Your task to perform on an android device: Show me popular videos on Youtube Image 0: 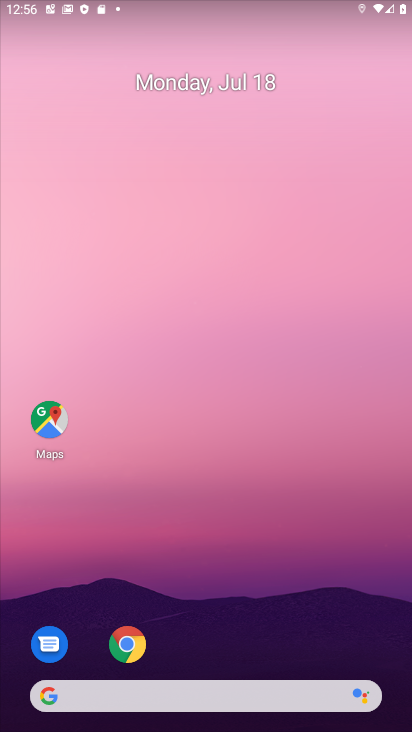
Step 0: drag from (239, 587) to (238, 265)
Your task to perform on an android device: Show me popular videos on Youtube Image 1: 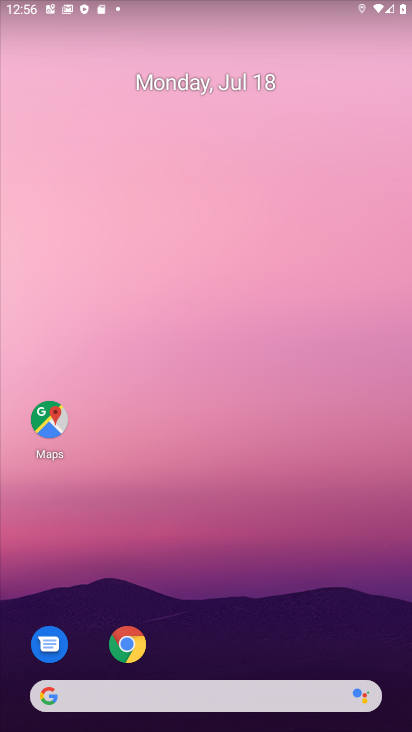
Step 1: drag from (276, 583) to (231, 16)
Your task to perform on an android device: Show me popular videos on Youtube Image 2: 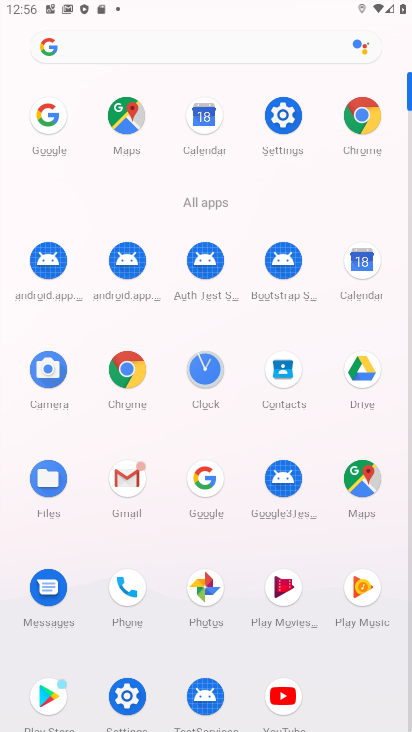
Step 2: click (279, 696)
Your task to perform on an android device: Show me popular videos on Youtube Image 3: 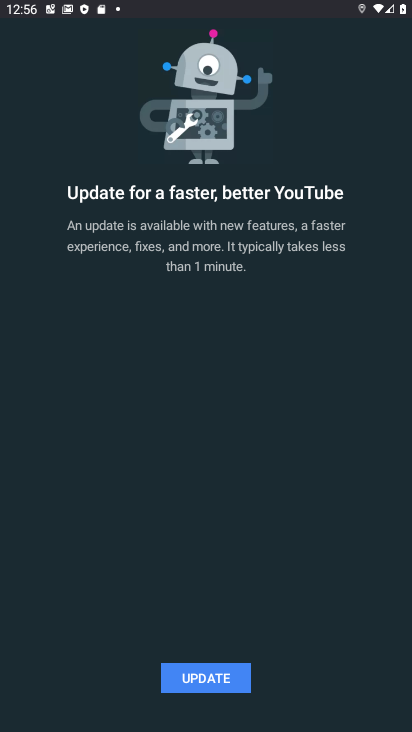
Step 3: click (205, 678)
Your task to perform on an android device: Show me popular videos on Youtube Image 4: 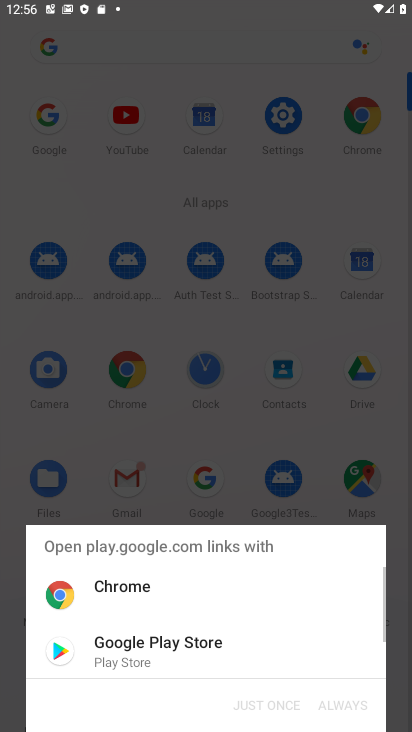
Step 4: click (213, 650)
Your task to perform on an android device: Show me popular videos on Youtube Image 5: 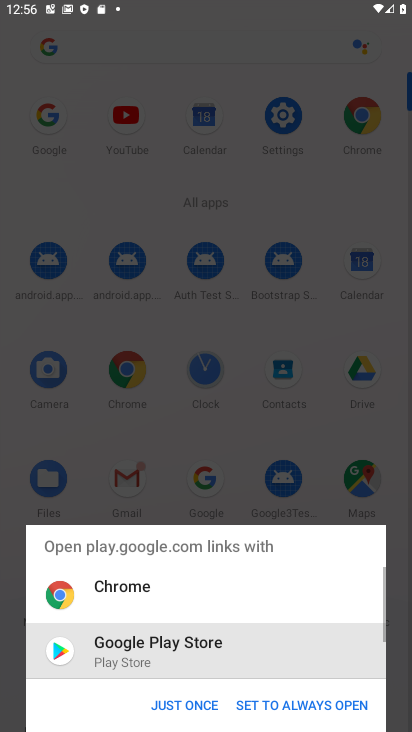
Step 5: click (164, 723)
Your task to perform on an android device: Show me popular videos on Youtube Image 6: 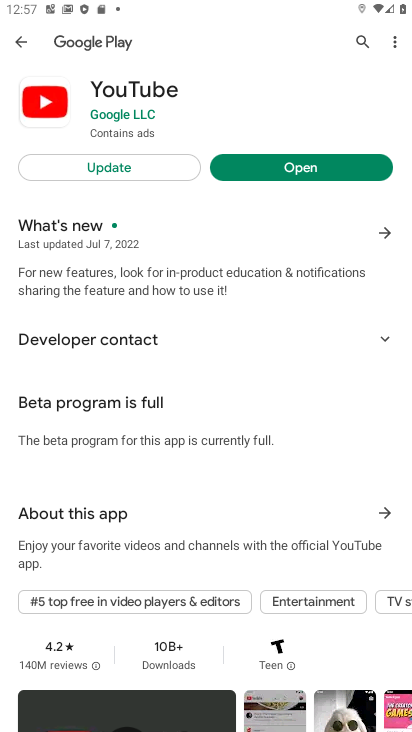
Step 6: click (139, 176)
Your task to perform on an android device: Show me popular videos on Youtube Image 7: 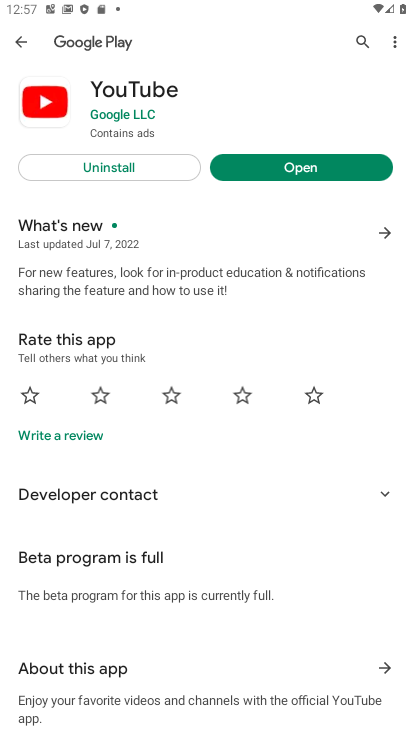
Step 7: click (256, 169)
Your task to perform on an android device: Show me popular videos on Youtube Image 8: 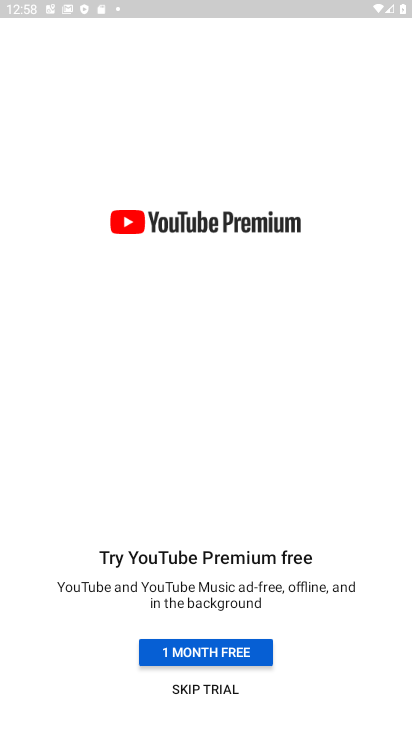
Step 8: press back button
Your task to perform on an android device: Show me popular videos on Youtube Image 9: 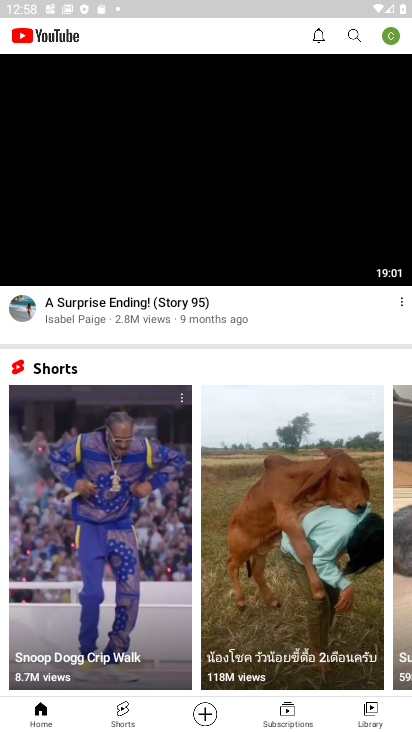
Step 9: drag from (45, 204) to (46, 456)
Your task to perform on an android device: Show me popular videos on Youtube Image 10: 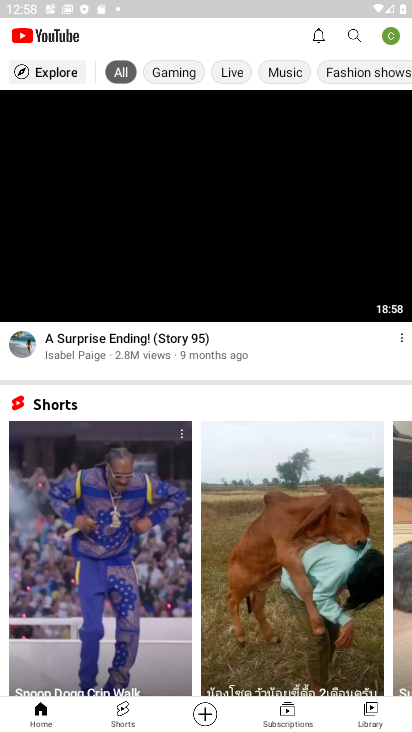
Step 10: click (26, 67)
Your task to perform on an android device: Show me popular videos on Youtube Image 11: 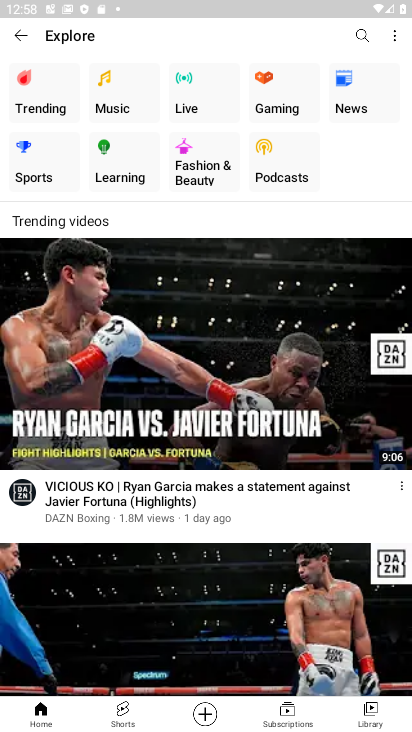
Step 11: click (29, 86)
Your task to perform on an android device: Show me popular videos on Youtube Image 12: 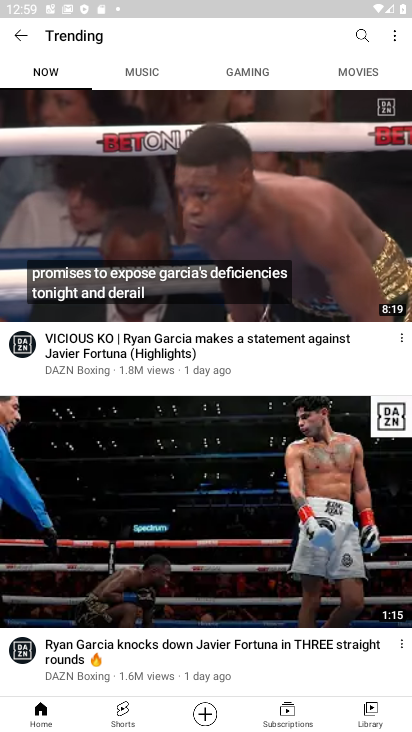
Step 12: task complete